Your task to perform on an android device: Open the calendar and show me this week's events Image 0: 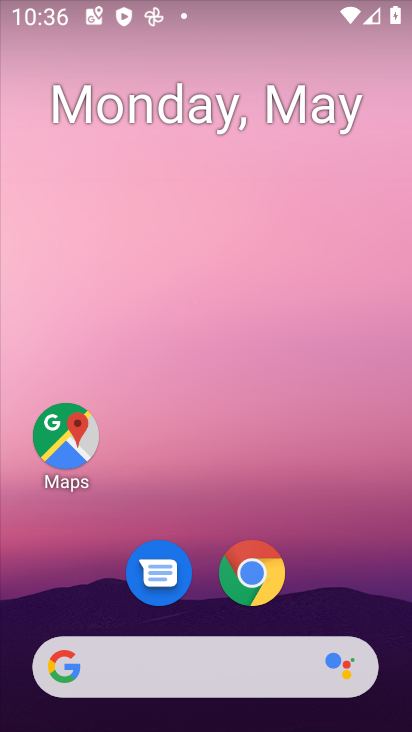
Step 0: drag from (361, 562) to (355, 7)
Your task to perform on an android device: Open the calendar and show me this week's events Image 1: 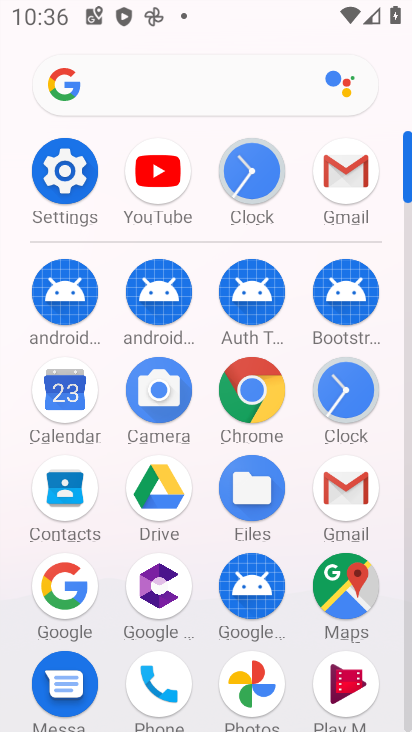
Step 1: click (81, 400)
Your task to perform on an android device: Open the calendar and show me this week's events Image 2: 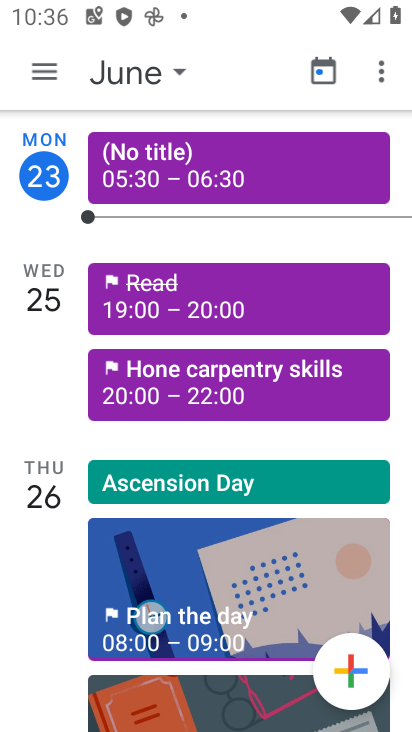
Step 2: task complete